Your task to perform on an android device: Search for a storage ottoman in the living room Image 0: 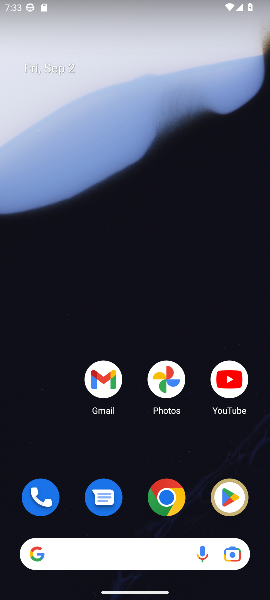
Step 0: drag from (123, 522) to (151, 55)
Your task to perform on an android device: Search for a storage ottoman in the living room Image 1: 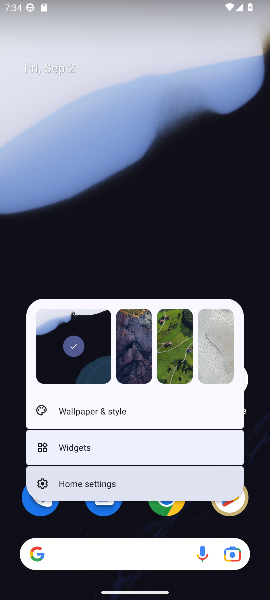
Step 1: click (130, 513)
Your task to perform on an android device: Search for a storage ottoman in the living room Image 2: 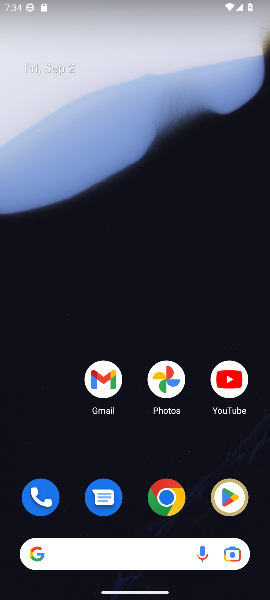
Step 2: drag from (159, 266) to (181, 9)
Your task to perform on an android device: Search for a storage ottoman in the living room Image 3: 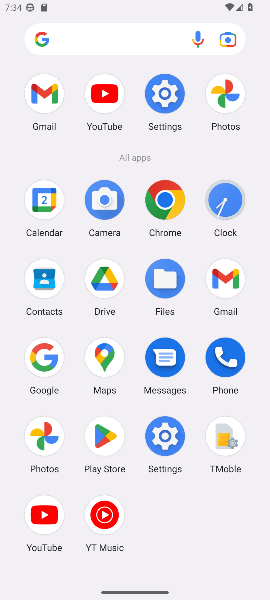
Step 3: click (160, 206)
Your task to perform on an android device: Search for a storage ottoman in the living room Image 4: 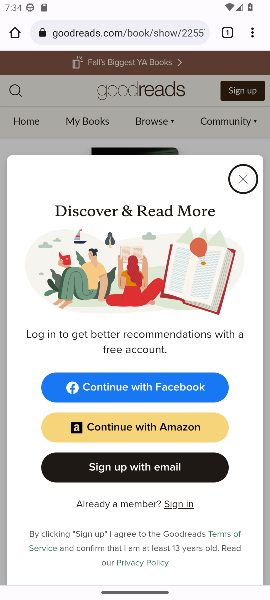
Step 4: click (124, 37)
Your task to perform on an android device: Search for a storage ottoman in the living room Image 5: 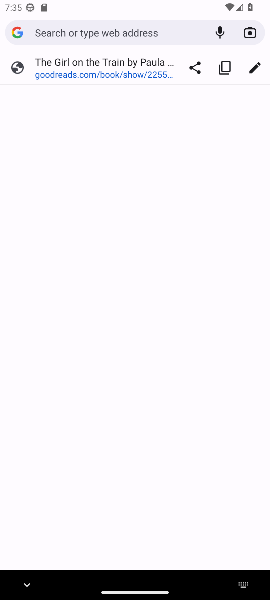
Step 5: type "a storage ottoman in the living room"
Your task to perform on an android device: Search for a storage ottoman in the living room Image 6: 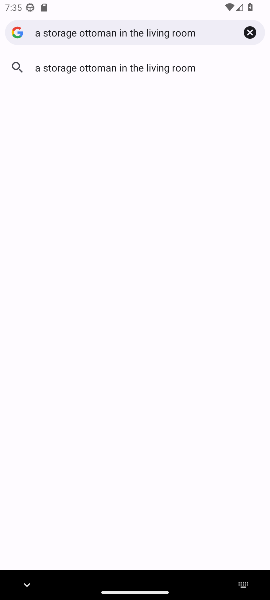
Step 6: click (175, 68)
Your task to perform on an android device: Search for a storage ottoman in the living room Image 7: 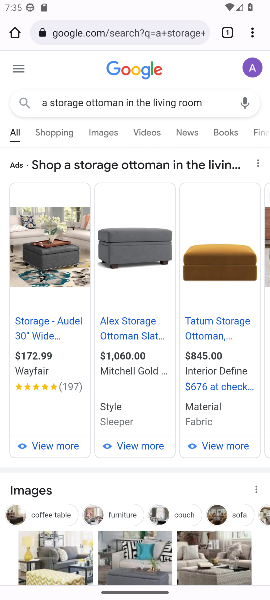
Step 7: task complete